Your task to perform on an android device: open app "HBO Max: Stream TV & Movies" (install if not already installed), go to login, and select forgot password Image 0: 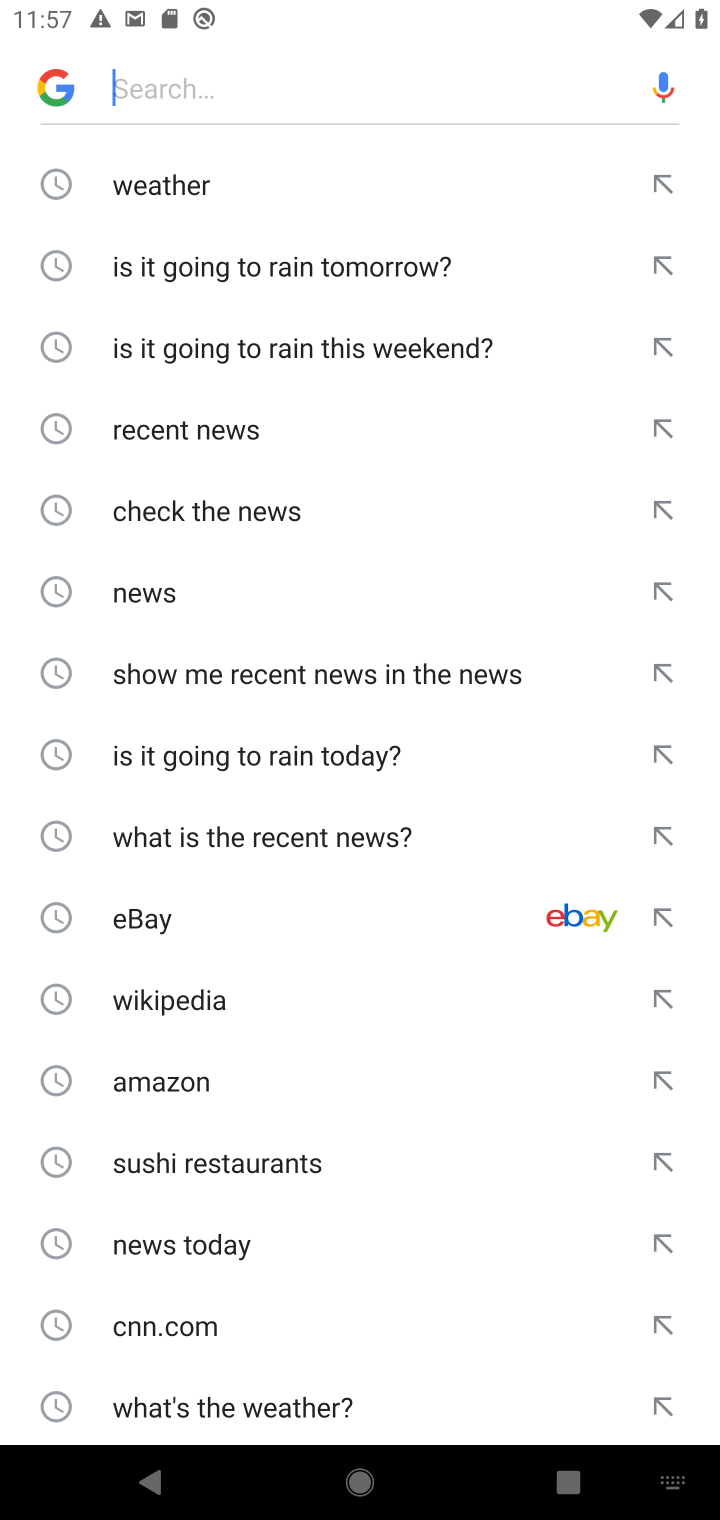
Step 0: press home button
Your task to perform on an android device: open app "HBO Max: Stream TV & Movies" (install if not already installed), go to login, and select forgot password Image 1: 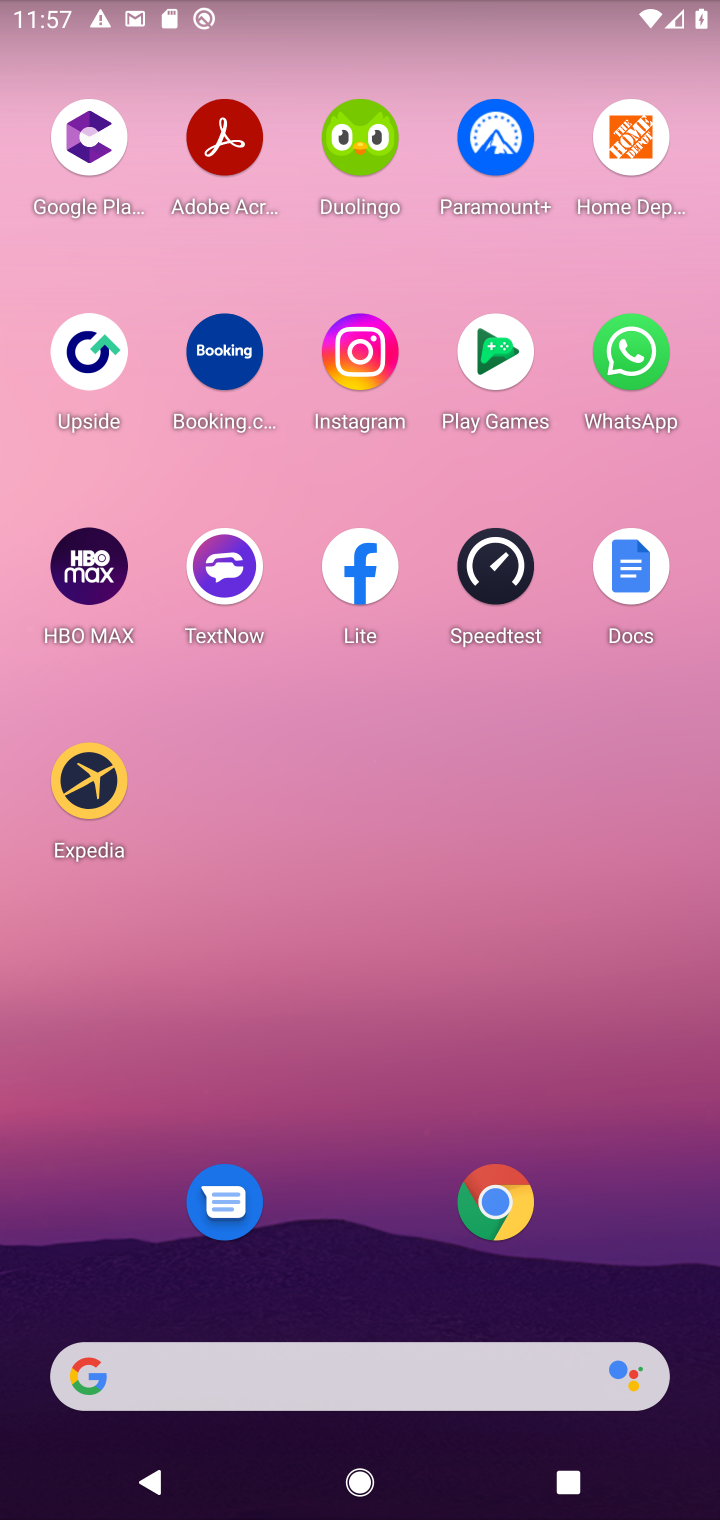
Step 1: drag from (322, 990) to (310, 179)
Your task to perform on an android device: open app "HBO Max: Stream TV & Movies" (install if not already installed), go to login, and select forgot password Image 2: 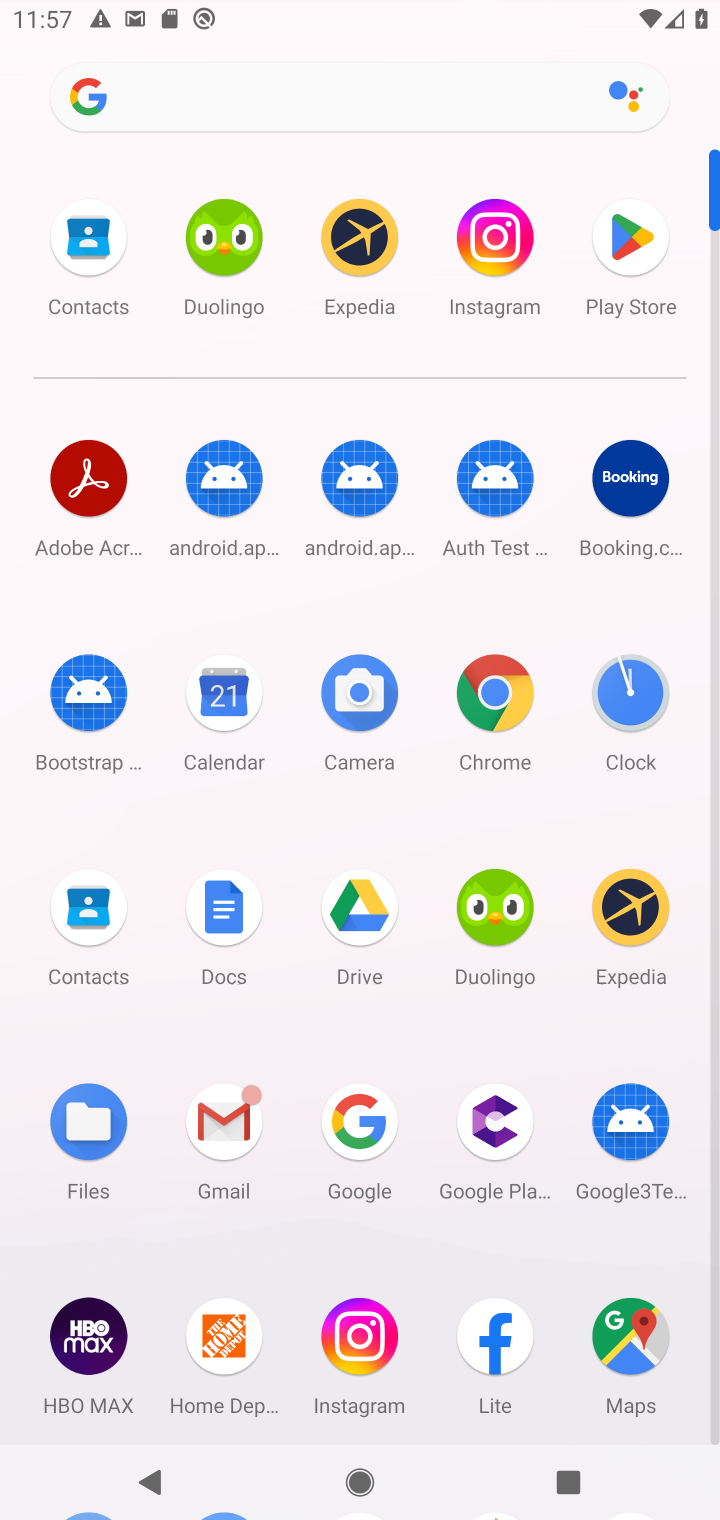
Step 2: click (99, 1343)
Your task to perform on an android device: open app "HBO Max: Stream TV & Movies" (install if not already installed), go to login, and select forgot password Image 3: 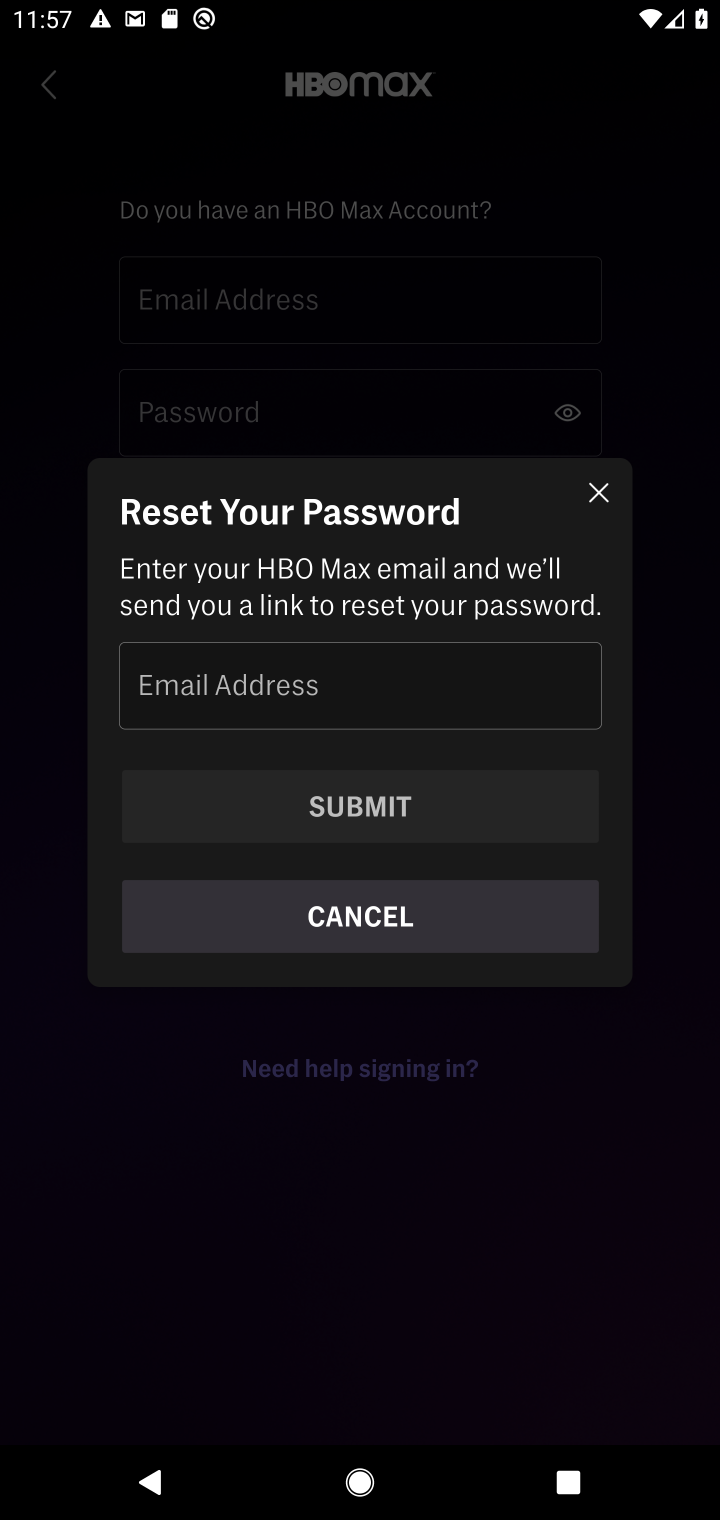
Step 3: task complete